Your task to perform on an android device: install app "Google Translate" Image 0: 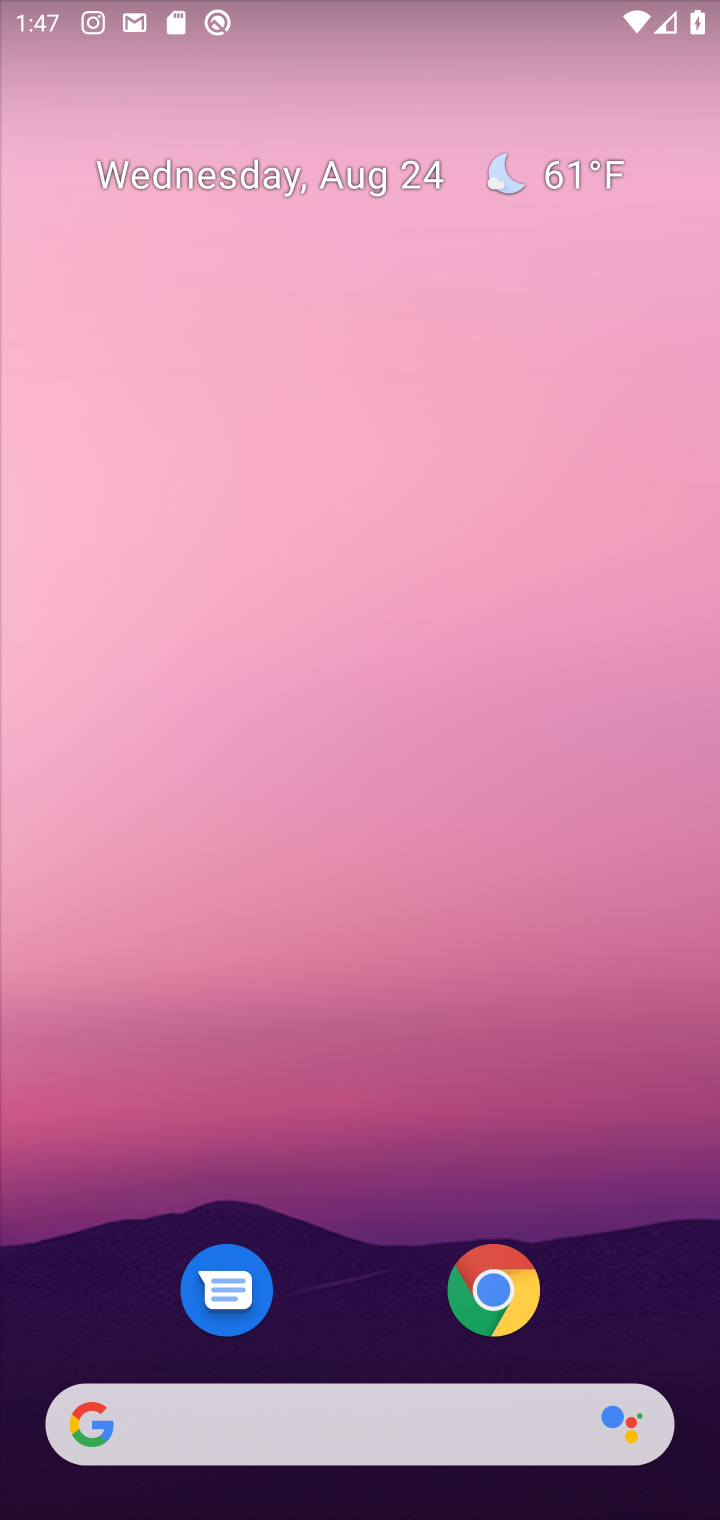
Step 0: drag from (360, 415) to (341, 63)
Your task to perform on an android device: install app "Google Translate" Image 1: 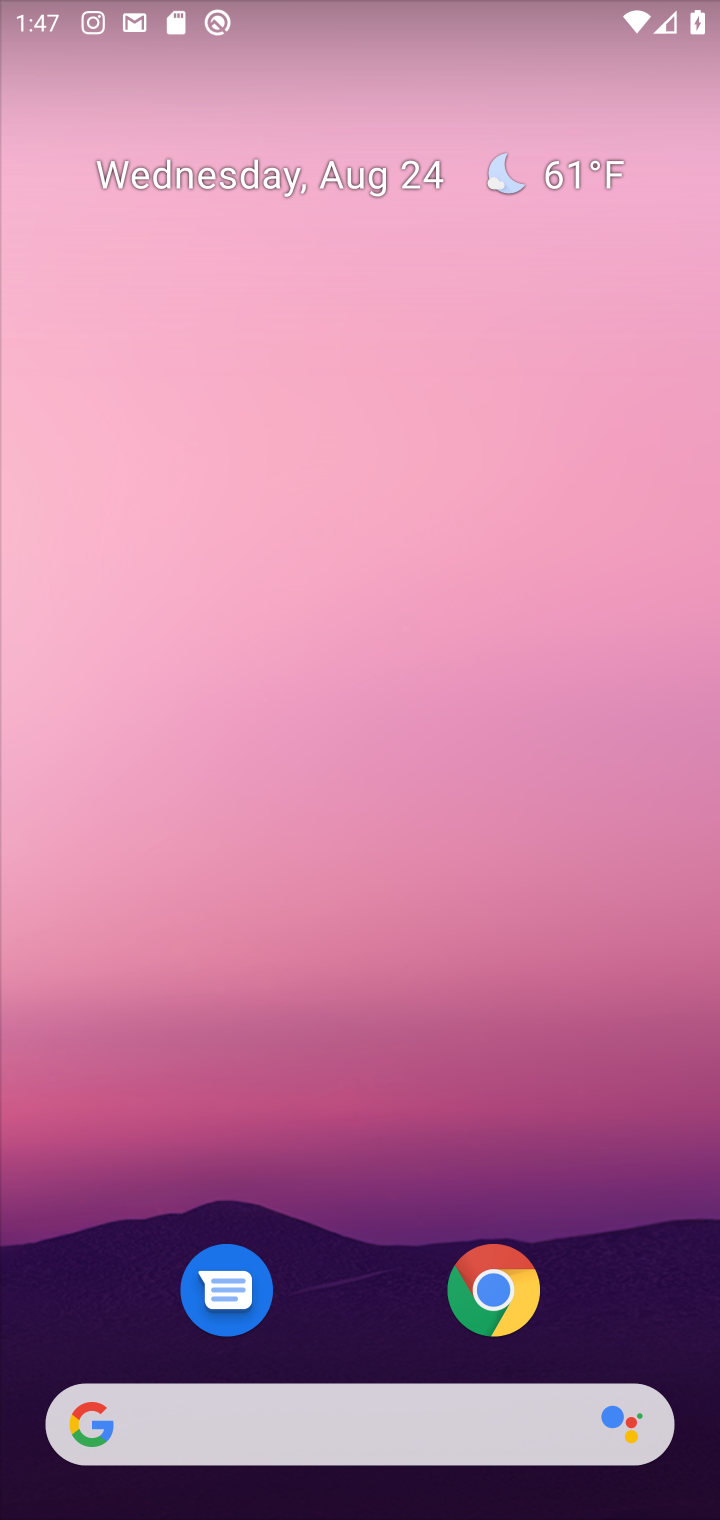
Step 1: drag from (291, 731) to (256, 20)
Your task to perform on an android device: install app "Google Translate" Image 2: 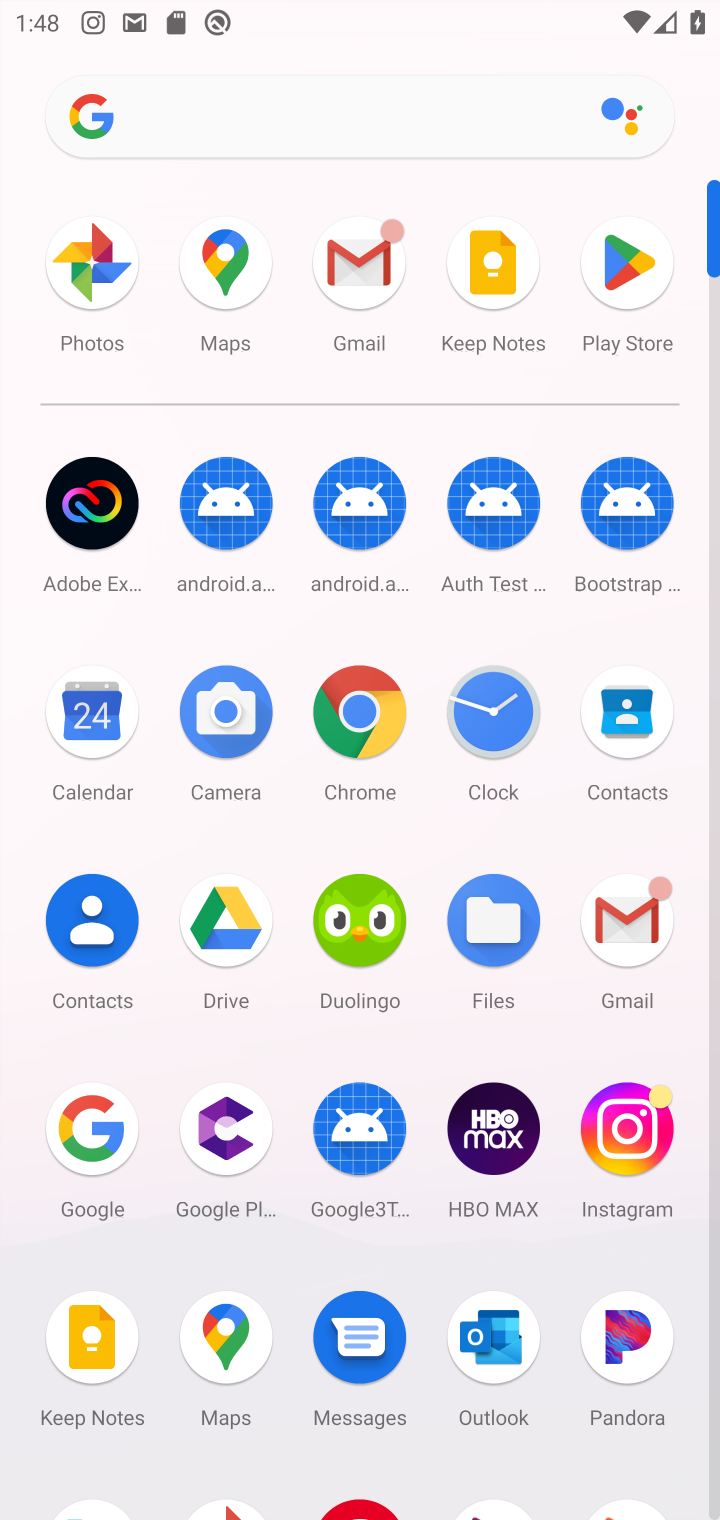
Step 2: click (630, 257)
Your task to perform on an android device: install app "Google Translate" Image 3: 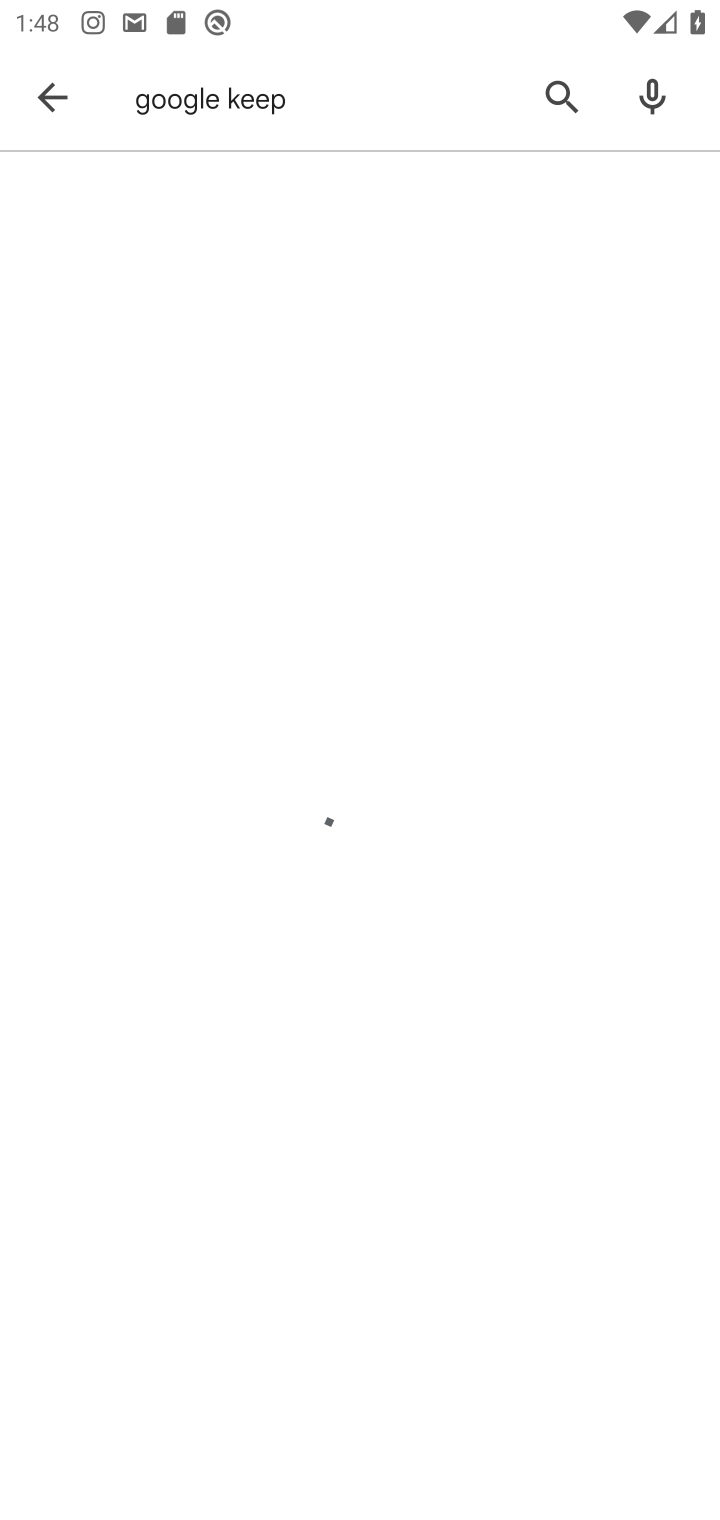
Step 3: click (48, 102)
Your task to perform on an android device: install app "Google Translate" Image 4: 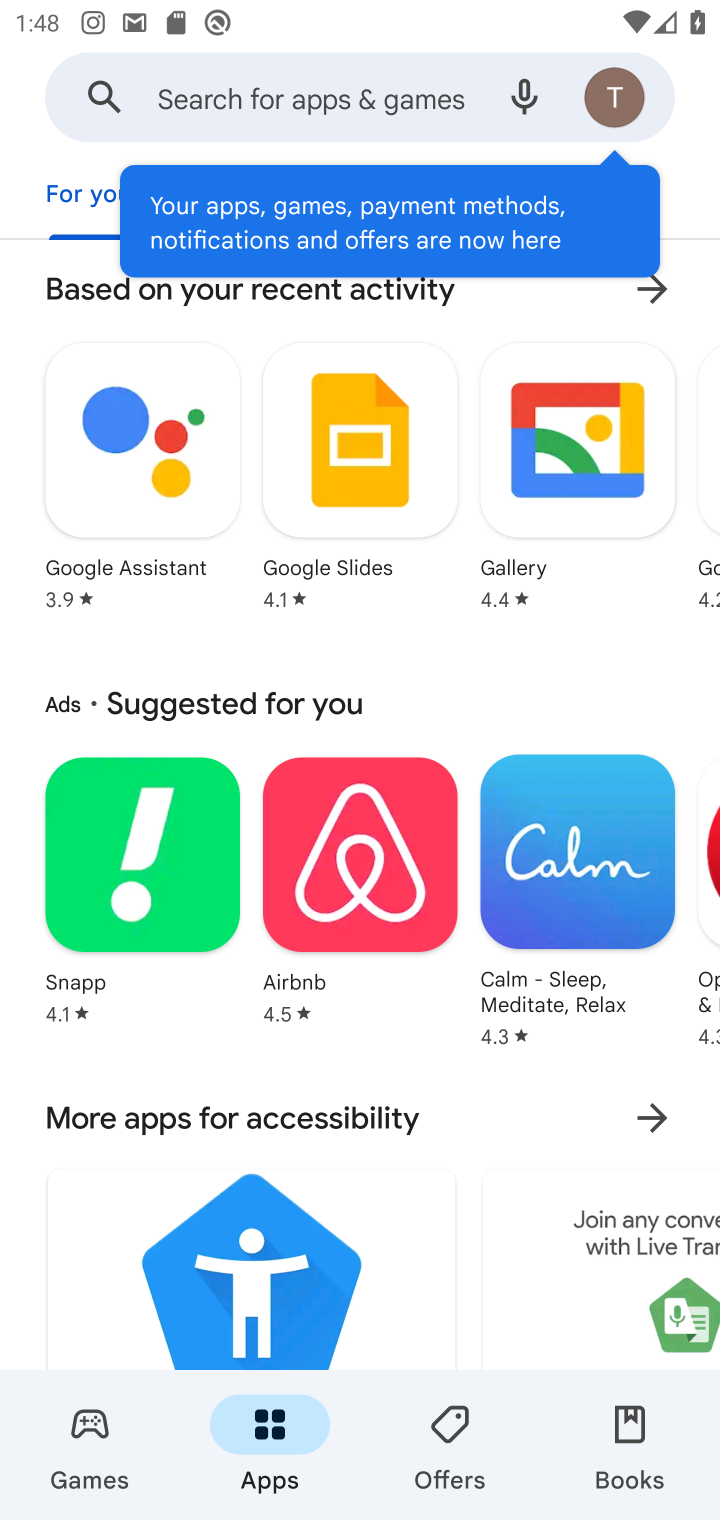
Step 4: click (391, 81)
Your task to perform on an android device: install app "Google Translate" Image 5: 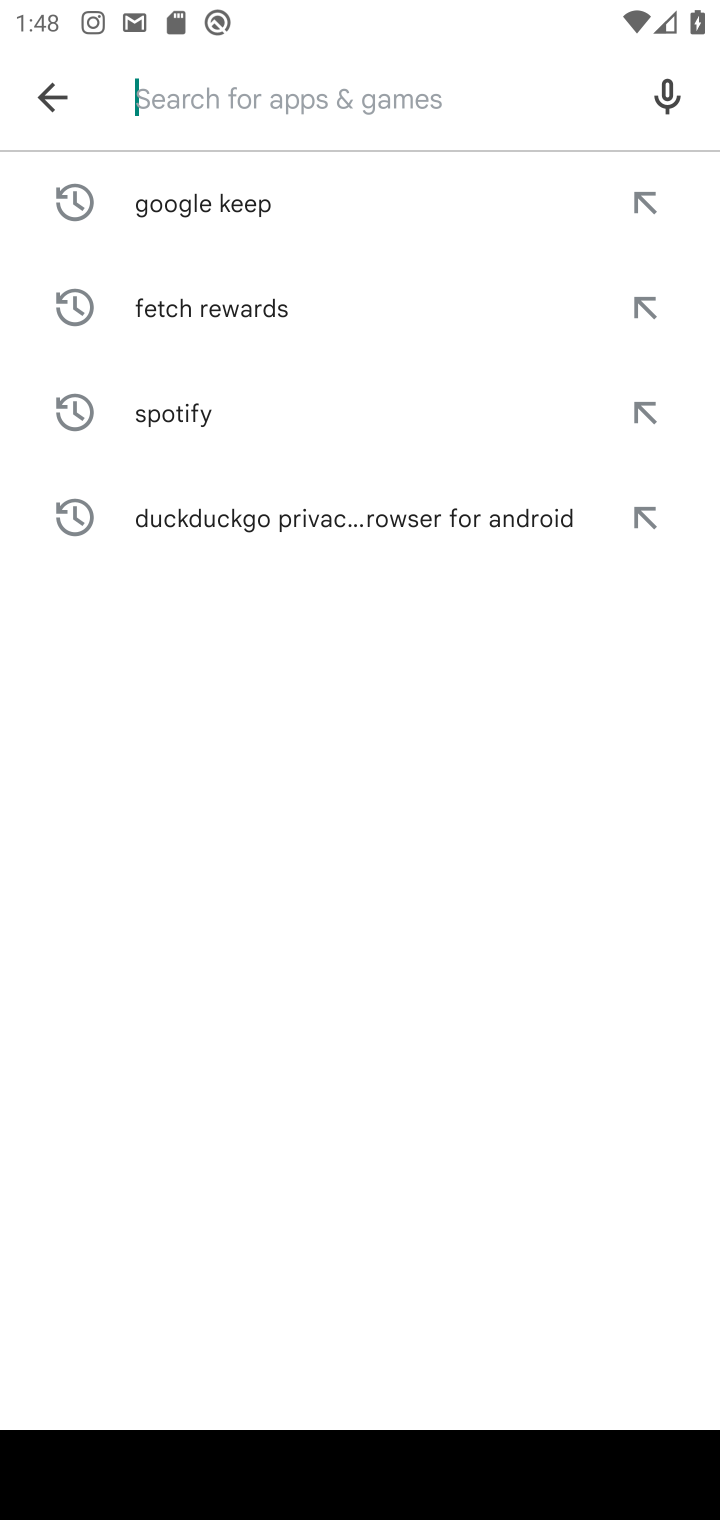
Step 5: type "Google Translate"
Your task to perform on an android device: install app "Google Translate" Image 6: 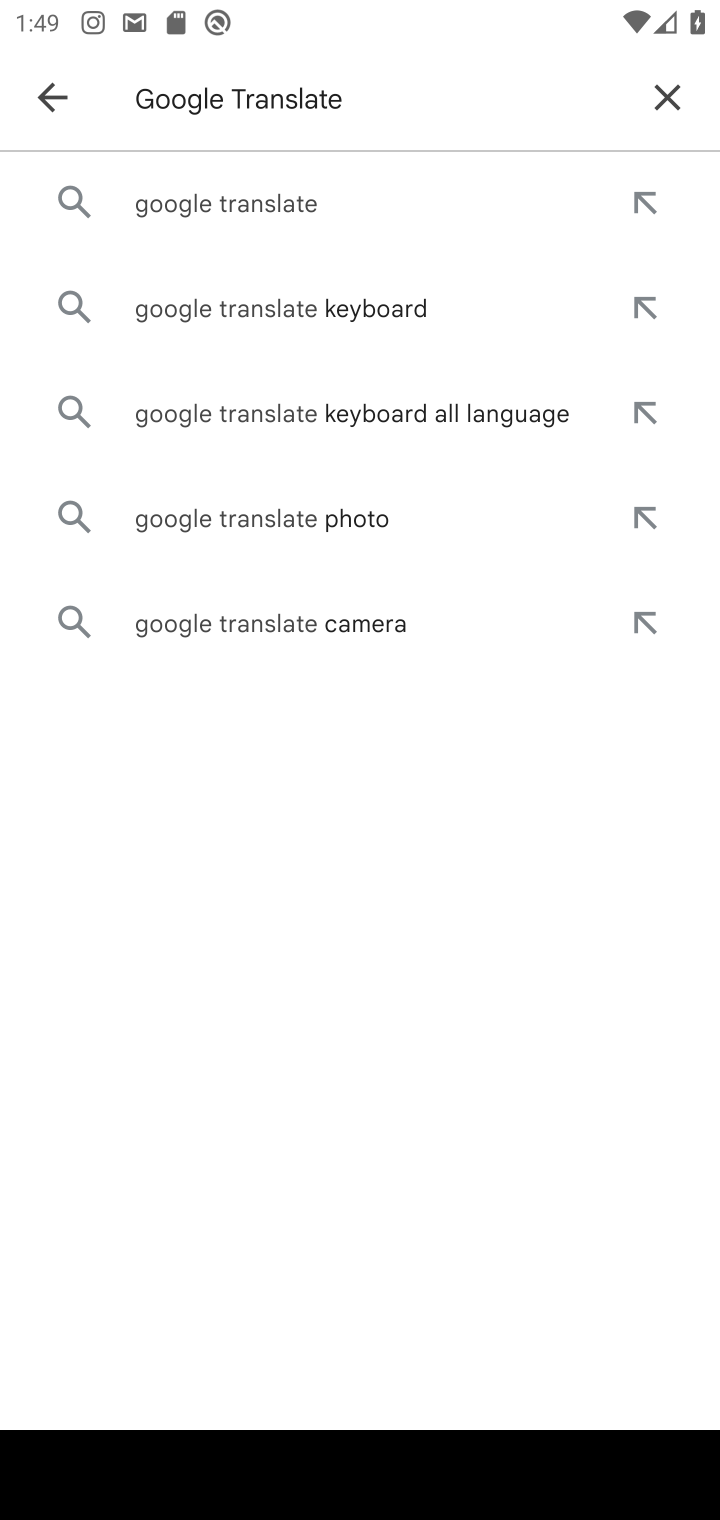
Step 6: click (192, 206)
Your task to perform on an android device: install app "Google Translate" Image 7: 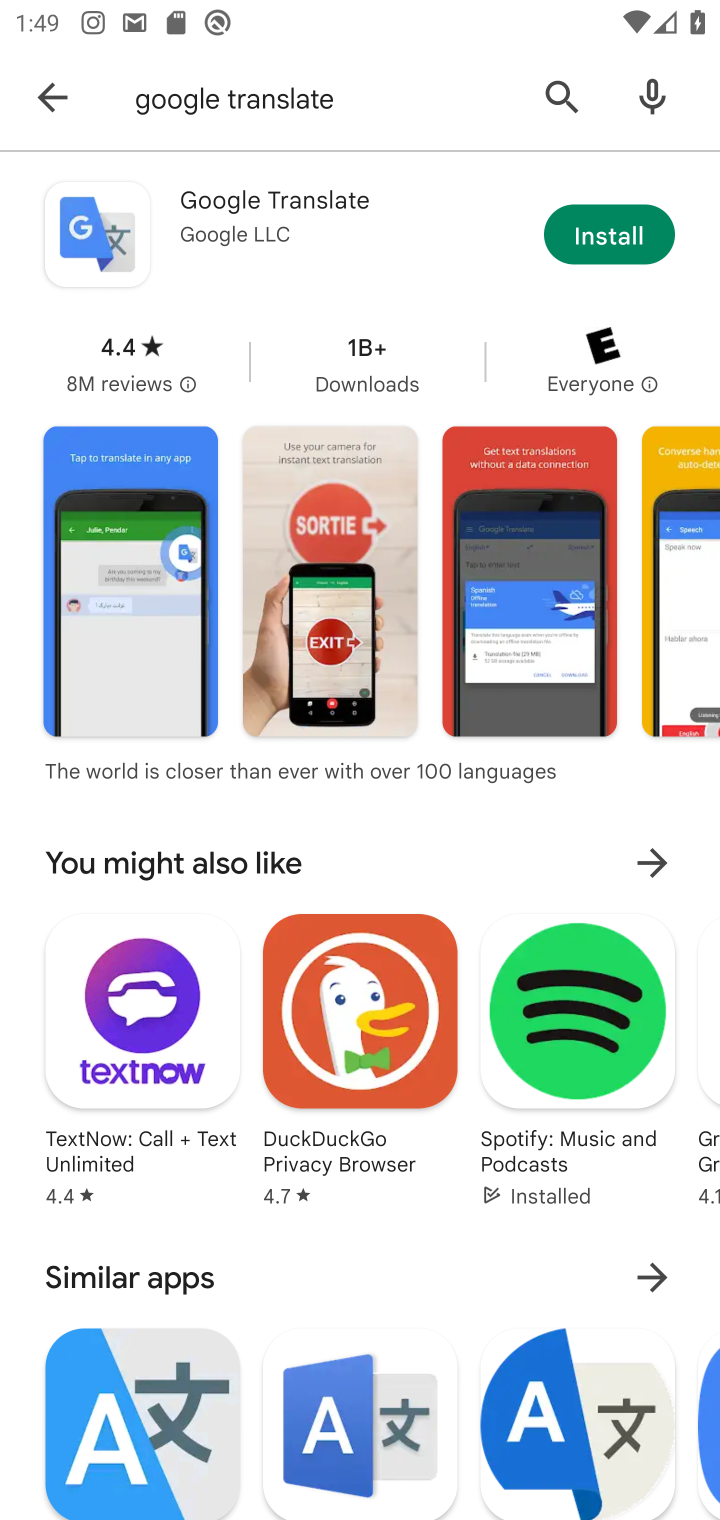
Step 7: click (593, 221)
Your task to perform on an android device: install app "Google Translate" Image 8: 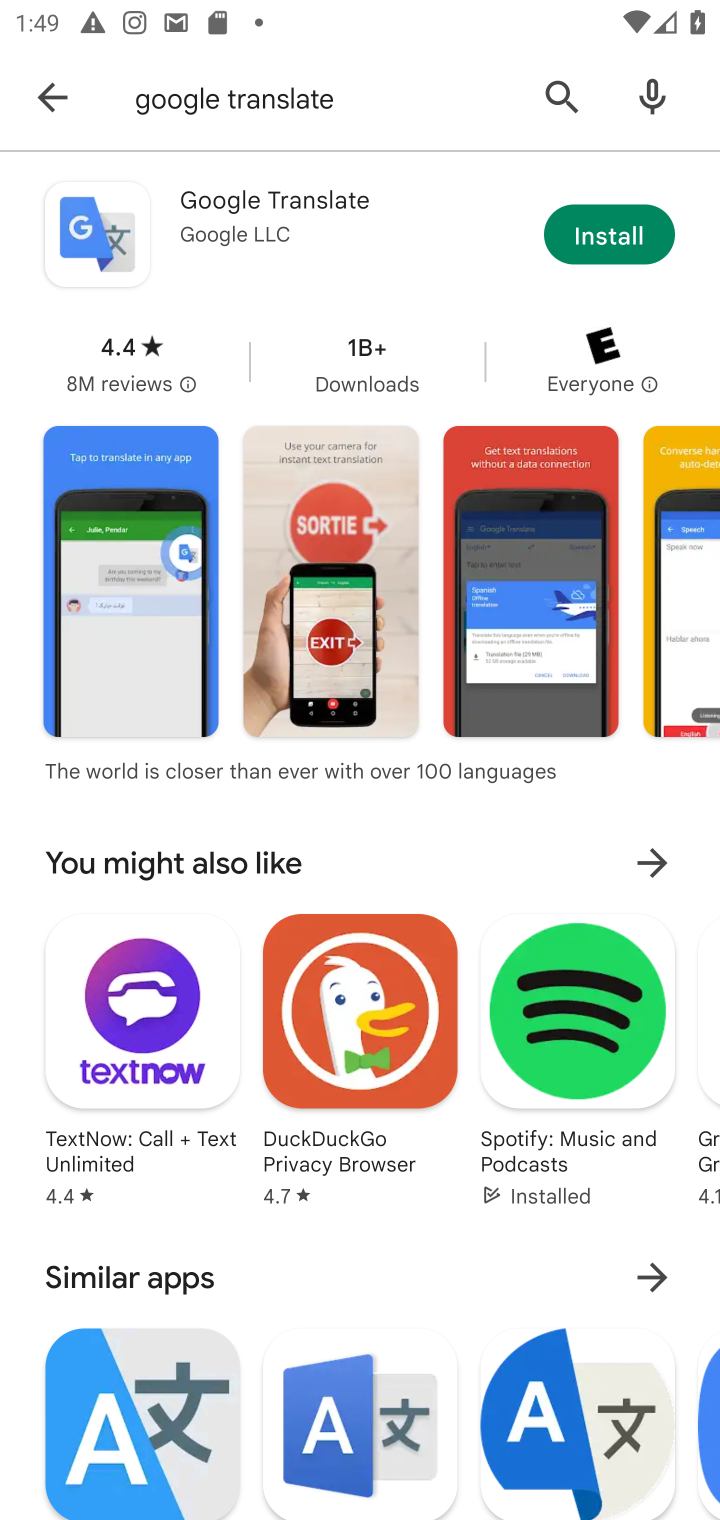
Step 8: click (593, 225)
Your task to perform on an android device: install app "Google Translate" Image 9: 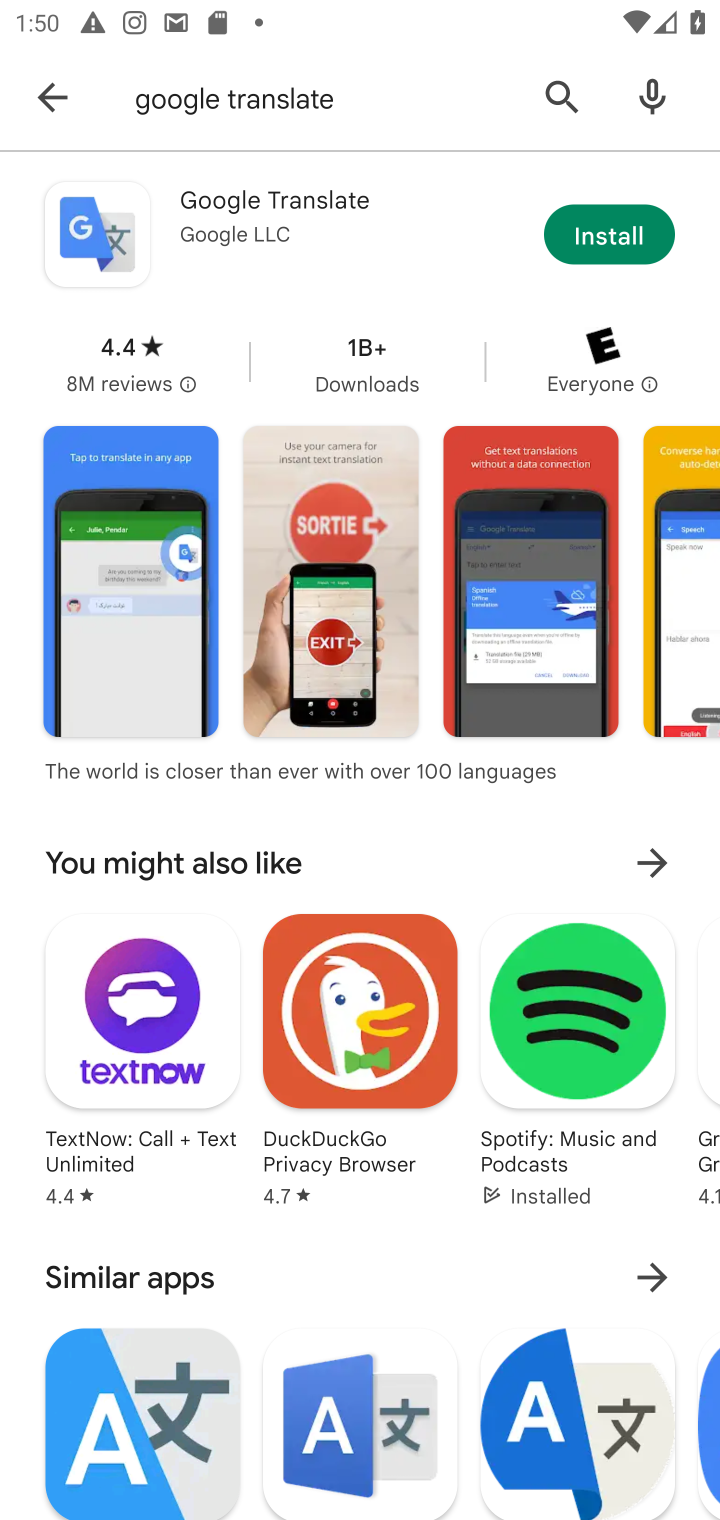
Step 9: task complete